Your task to perform on an android device: Search for pizza restaurants on Maps Image 0: 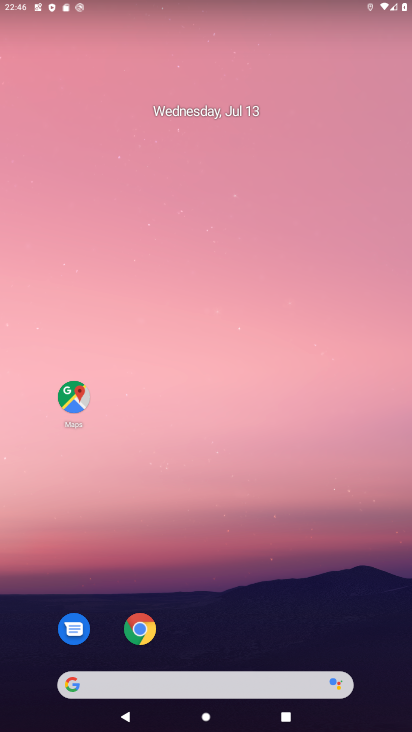
Step 0: click (74, 392)
Your task to perform on an android device: Search for pizza restaurants on Maps Image 1: 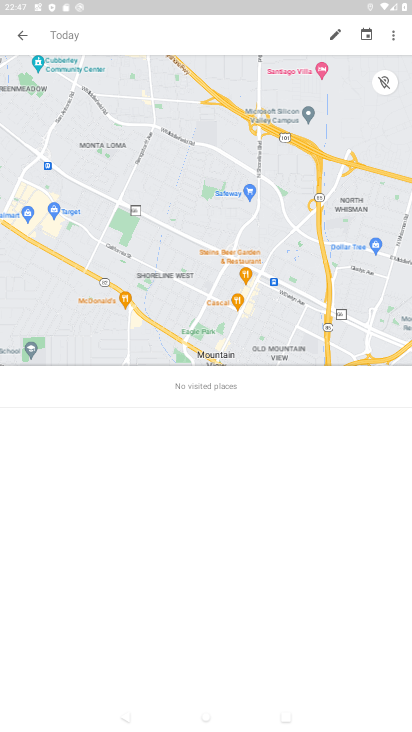
Step 1: click (22, 32)
Your task to perform on an android device: Search for pizza restaurants on Maps Image 2: 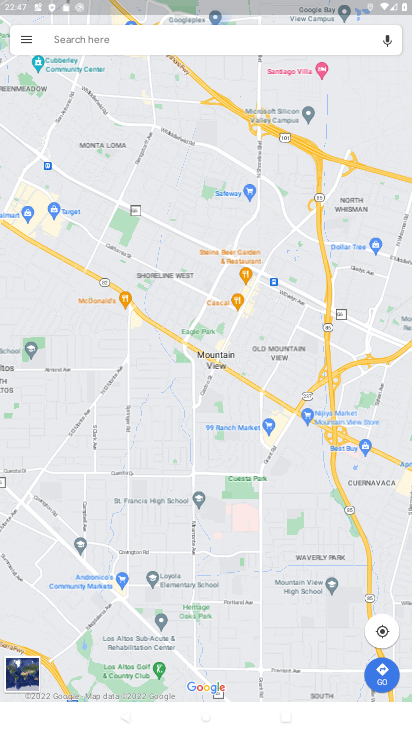
Step 2: click (98, 39)
Your task to perform on an android device: Search for pizza restaurants on Maps Image 3: 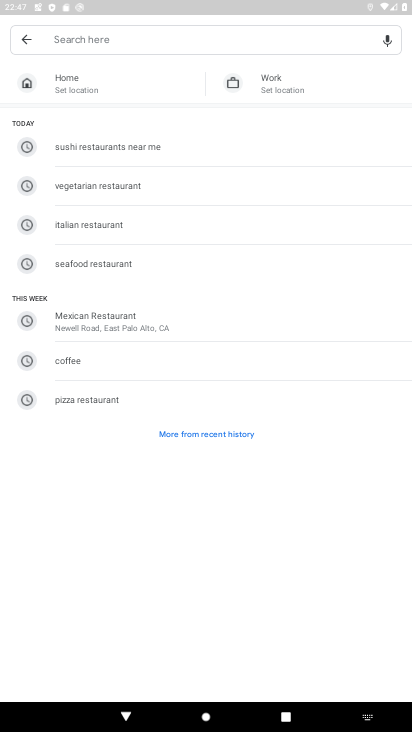
Step 3: type "pizza"
Your task to perform on an android device: Search for pizza restaurants on Maps Image 4: 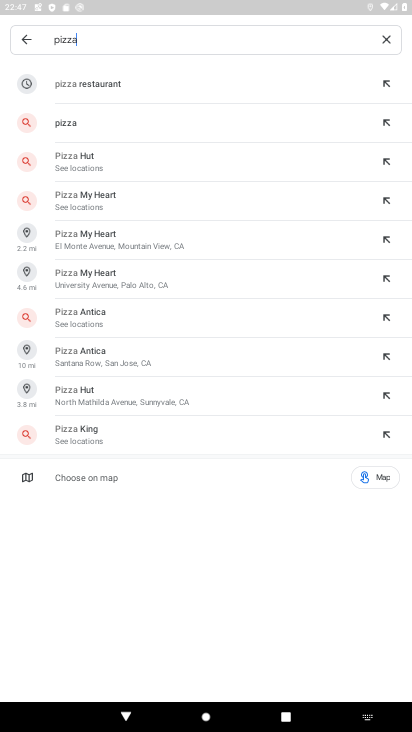
Step 4: click (126, 84)
Your task to perform on an android device: Search for pizza restaurants on Maps Image 5: 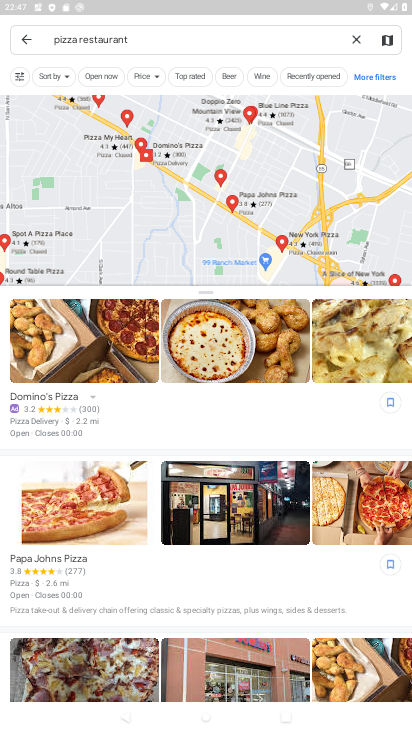
Step 5: task complete